Your task to perform on an android device: Show me the alarms in the clock app Image 0: 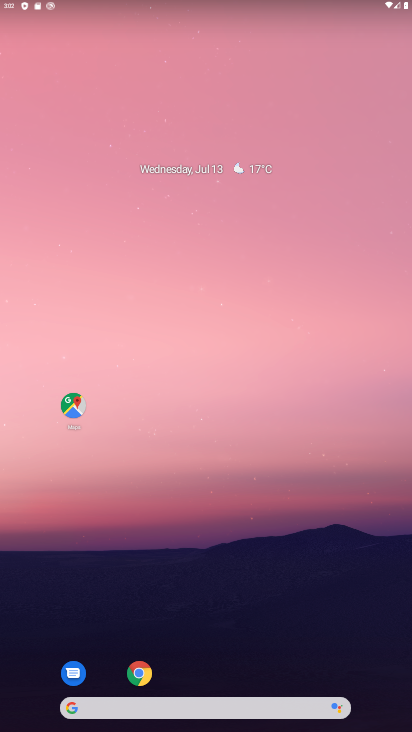
Step 0: drag from (264, 629) to (255, 137)
Your task to perform on an android device: Show me the alarms in the clock app Image 1: 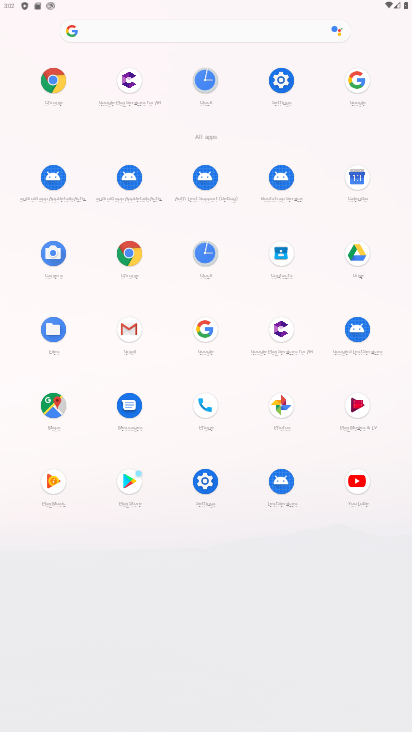
Step 1: click (206, 247)
Your task to perform on an android device: Show me the alarms in the clock app Image 2: 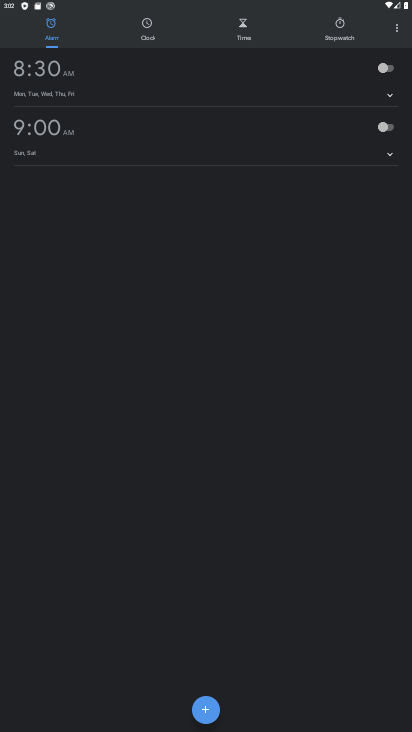
Step 2: task complete